Your task to perform on an android device: open app "Paramount+ | Peak Streaming" (install if not already installed) Image 0: 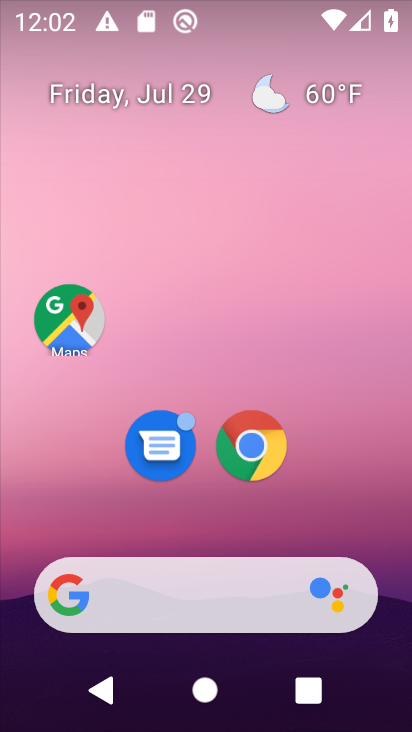
Step 0: press home button
Your task to perform on an android device: open app "Paramount+ | Peak Streaming" (install if not already installed) Image 1: 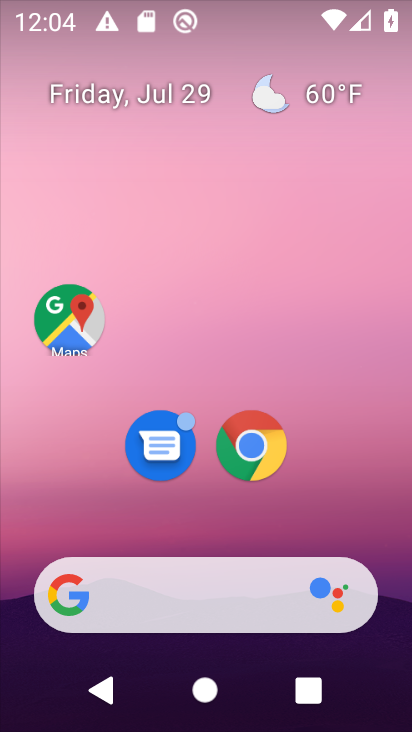
Step 1: drag from (305, 555) to (149, 1)
Your task to perform on an android device: open app "Paramount+ | Peak Streaming" (install if not already installed) Image 2: 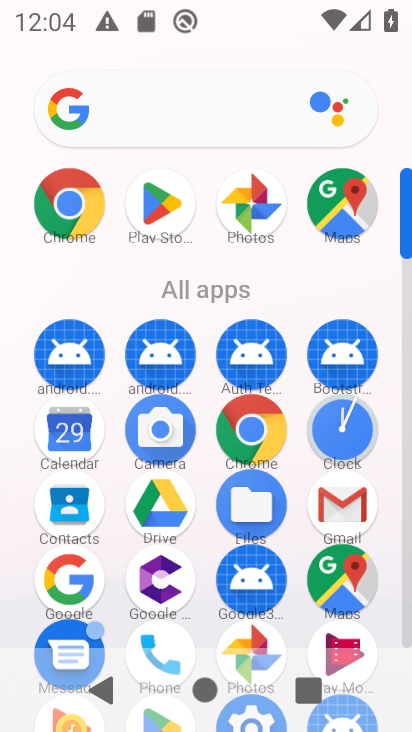
Step 2: click (174, 207)
Your task to perform on an android device: open app "Paramount+ | Peak Streaming" (install if not already installed) Image 3: 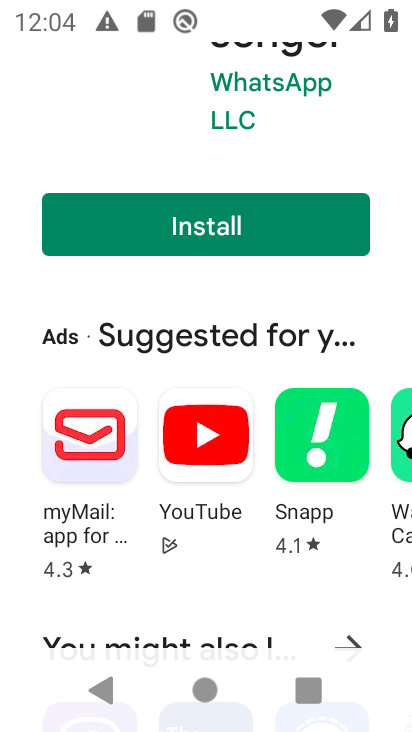
Step 3: drag from (303, 172) to (204, 635)
Your task to perform on an android device: open app "Paramount+ | Peak Streaming" (install if not already installed) Image 4: 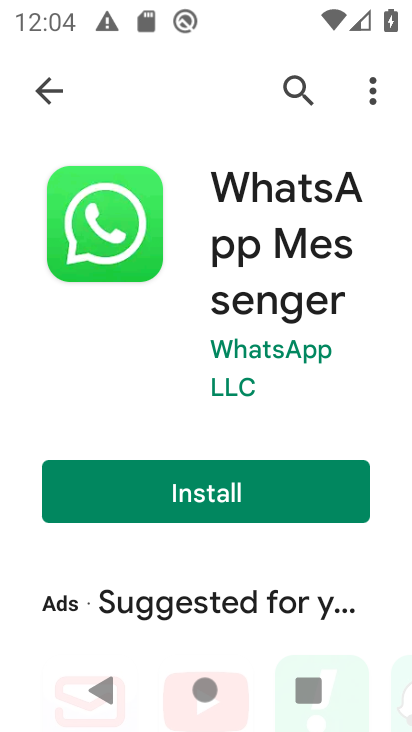
Step 4: click (310, 89)
Your task to perform on an android device: open app "Paramount+ | Peak Streaming" (install if not already installed) Image 5: 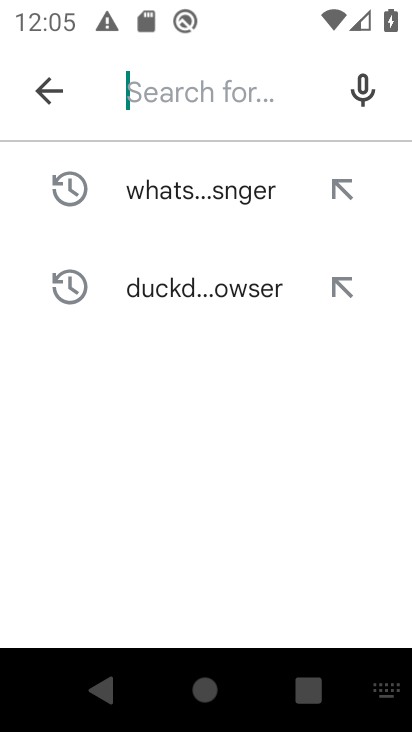
Step 5: type "Parmount+ "
Your task to perform on an android device: open app "Paramount+ | Peak Streaming" (install if not already installed) Image 6: 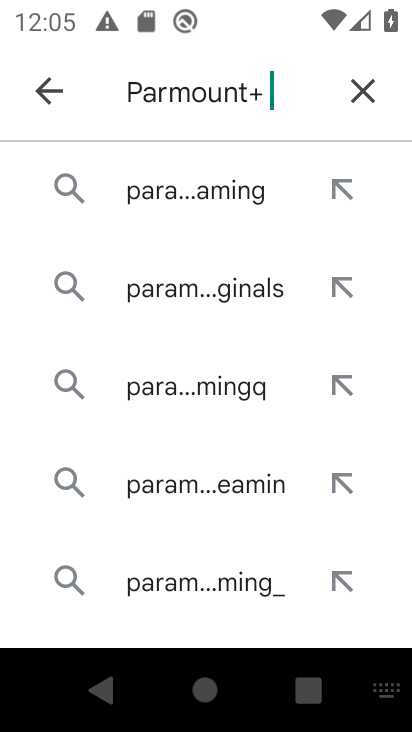
Step 6: click (221, 201)
Your task to perform on an android device: open app "Paramount+ | Peak Streaming" (install if not already installed) Image 7: 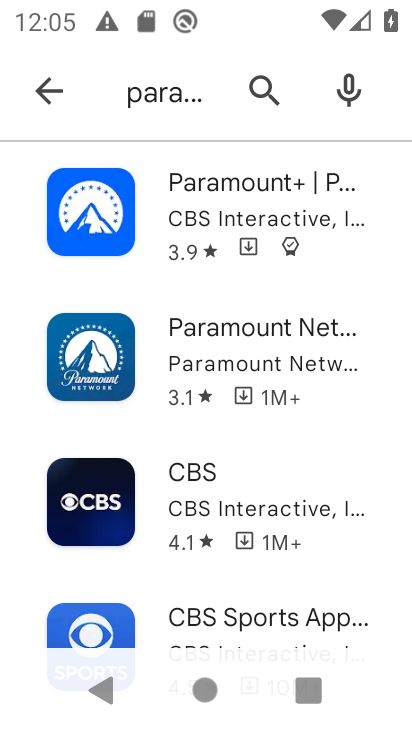
Step 7: press home button
Your task to perform on an android device: open app "Paramount+ | Peak Streaming" (install if not already installed) Image 8: 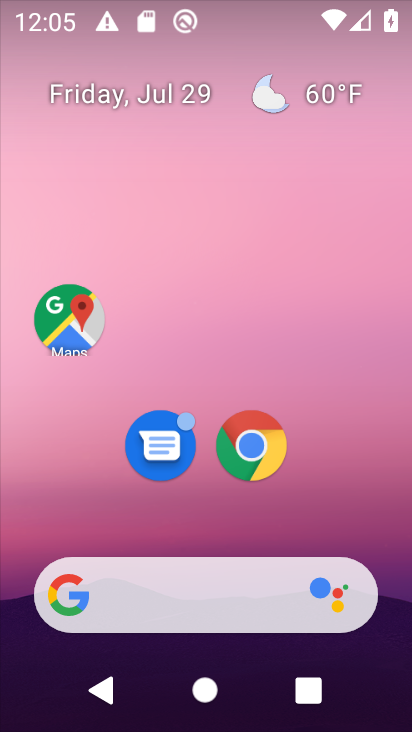
Step 8: drag from (366, 535) to (146, 52)
Your task to perform on an android device: open app "Paramount+ | Peak Streaming" (install if not already installed) Image 9: 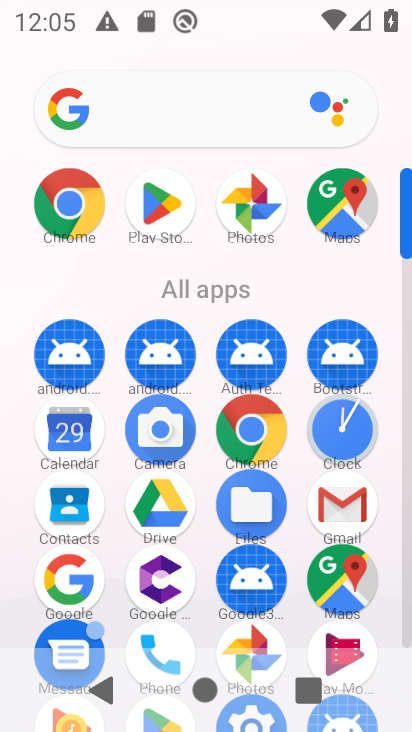
Step 9: click (169, 183)
Your task to perform on an android device: open app "Paramount+ | Peak Streaming" (install if not already installed) Image 10: 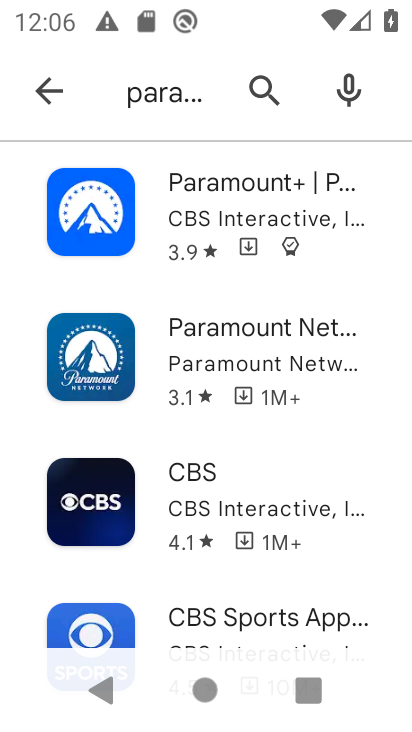
Step 10: click (267, 86)
Your task to perform on an android device: open app "Paramount+ | Peak Streaming" (install if not already installed) Image 11: 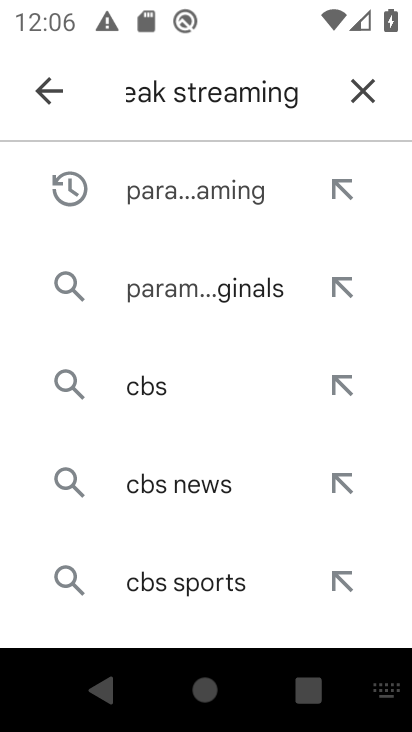
Step 11: click (356, 91)
Your task to perform on an android device: open app "Paramount+ | Peak Streaming" (install if not already installed) Image 12: 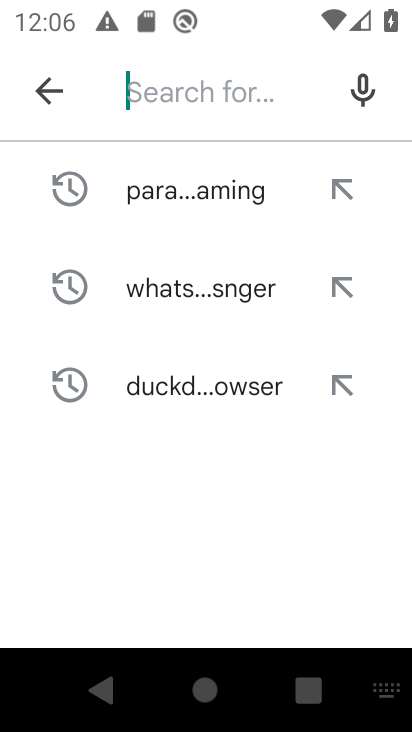
Step 12: type "Paramount+ | Peak Streaming"
Your task to perform on an android device: open app "Paramount+ | Peak Streaming" (install if not already installed) Image 13: 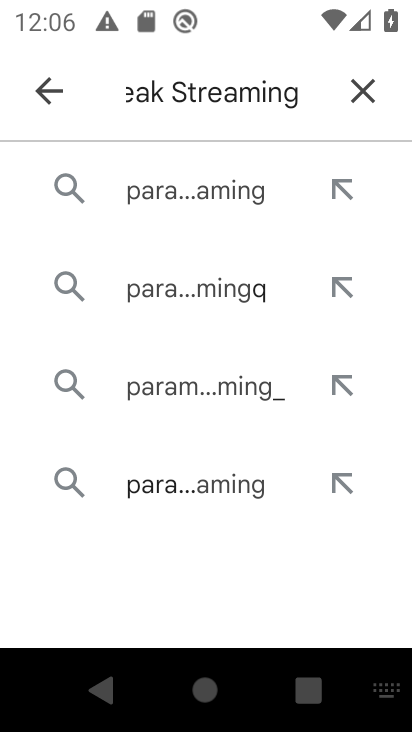
Step 13: click (191, 185)
Your task to perform on an android device: open app "Paramount+ | Peak Streaming" (install if not already installed) Image 14: 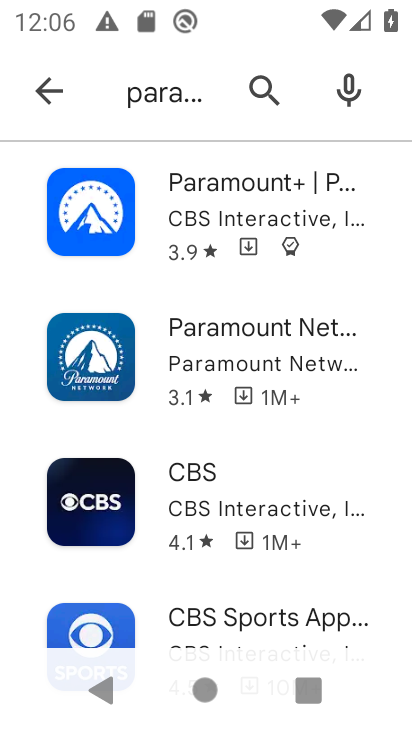
Step 14: click (168, 206)
Your task to perform on an android device: open app "Paramount+ | Peak Streaming" (install if not already installed) Image 15: 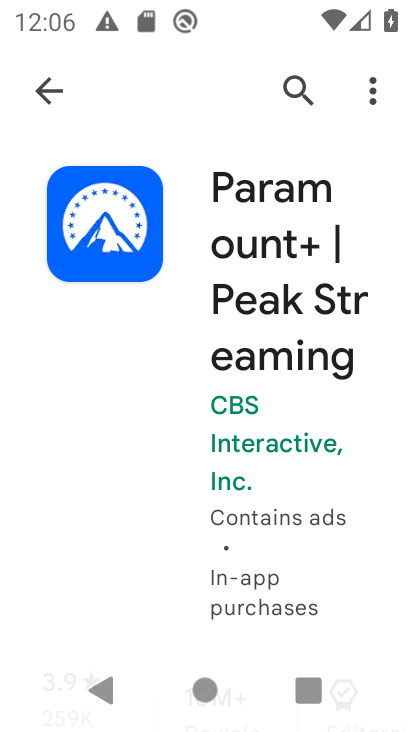
Step 15: drag from (172, 476) to (264, 84)
Your task to perform on an android device: open app "Paramount+ | Peak Streaming" (install if not already installed) Image 16: 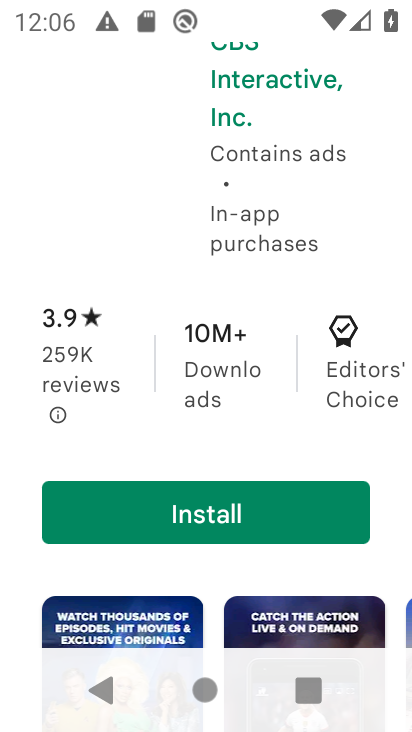
Step 16: click (195, 515)
Your task to perform on an android device: open app "Paramount+ | Peak Streaming" (install if not already installed) Image 17: 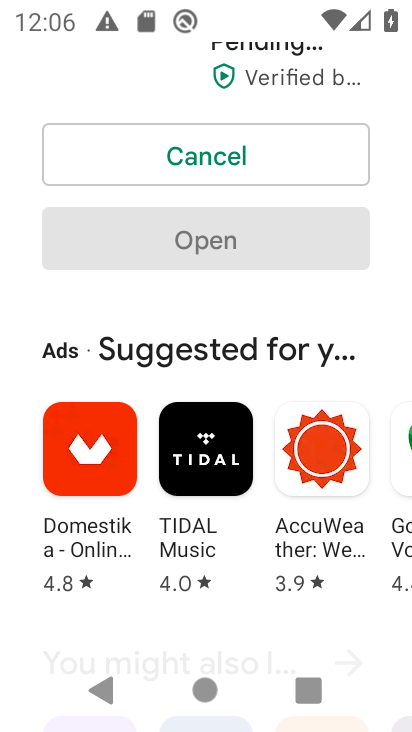
Step 17: drag from (142, 326) to (65, 728)
Your task to perform on an android device: open app "Paramount+ | Peak Streaming" (install if not already installed) Image 18: 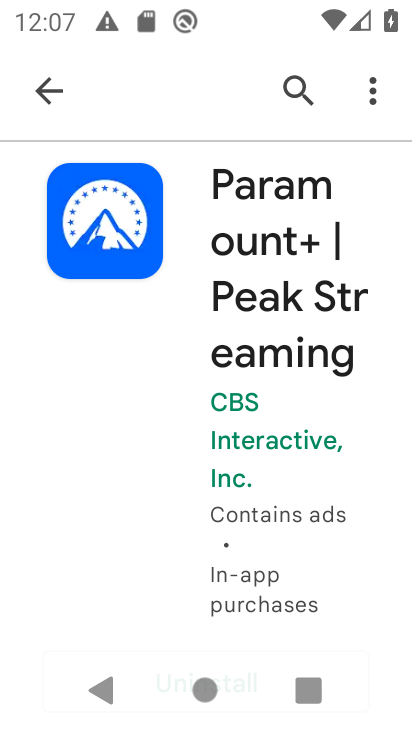
Step 18: drag from (88, 632) to (109, 194)
Your task to perform on an android device: open app "Paramount+ | Peak Streaming" (install if not already installed) Image 19: 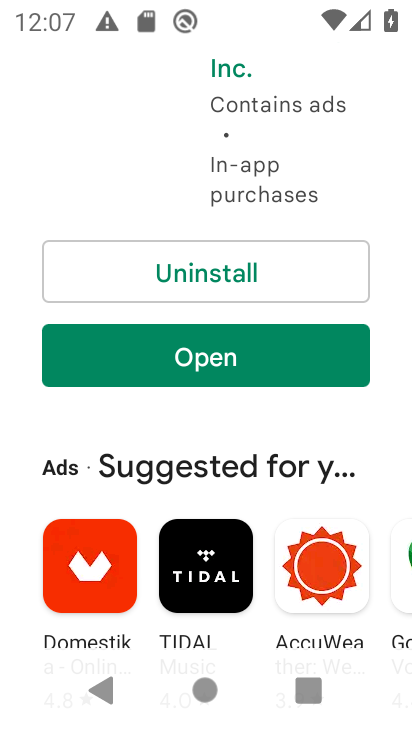
Step 19: click (196, 344)
Your task to perform on an android device: open app "Paramount+ | Peak Streaming" (install if not already installed) Image 20: 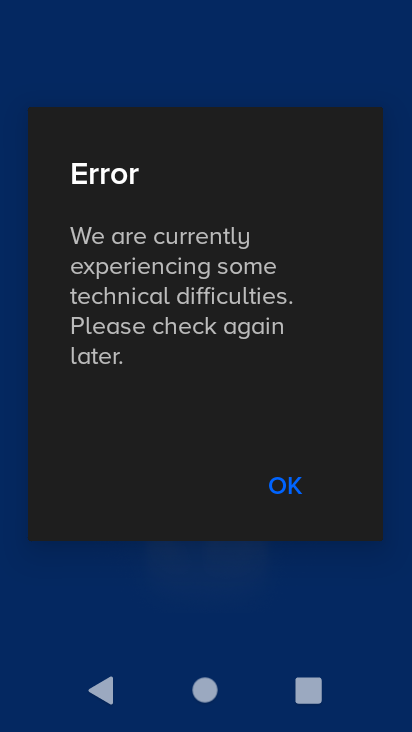
Step 20: task complete